Your task to perform on an android device: Open maps Image 0: 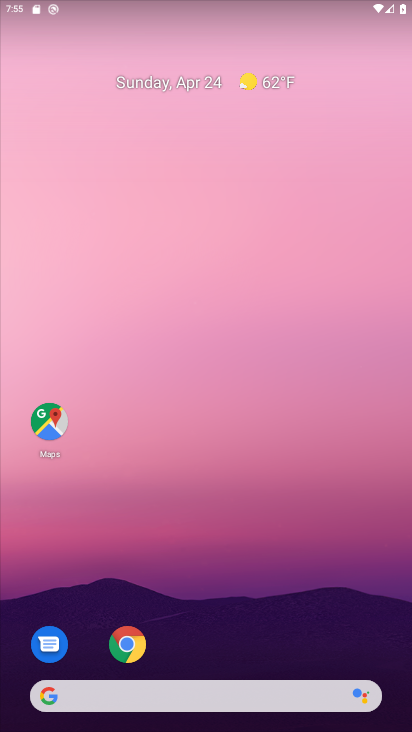
Step 0: drag from (204, 625) to (226, 54)
Your task to perform on an android device: Open maps Image 1: 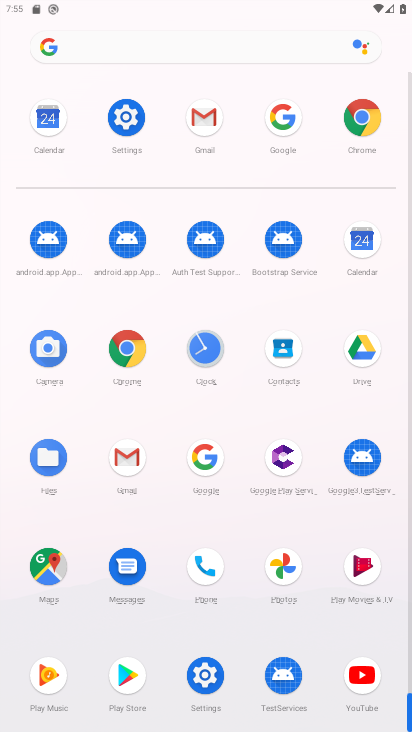
Step 1: click (46, 560)
Your task to perform on an android device: Open maps Image 2: 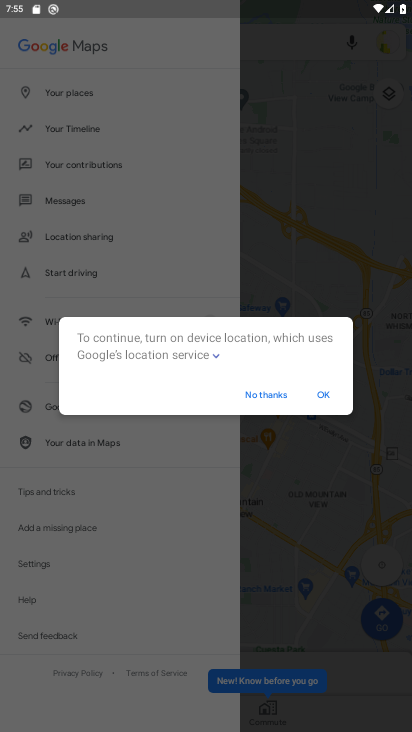
Step 2: click (314, 391)
Your task to perform on an android device: Open maps Image 3: 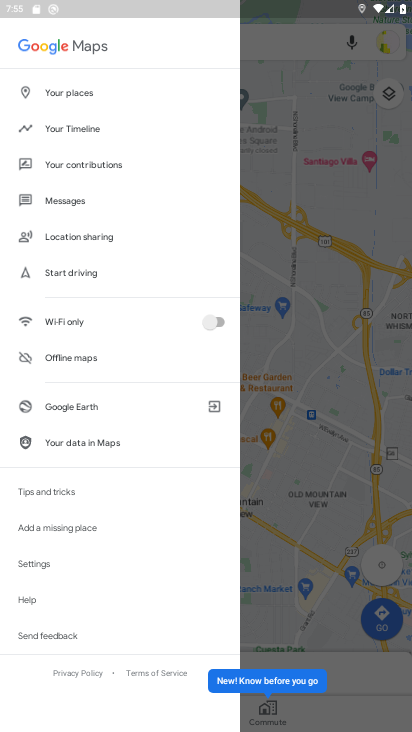
Step 3: click (283, 453)
Your task to perform on an android device: Open maps Image 4: 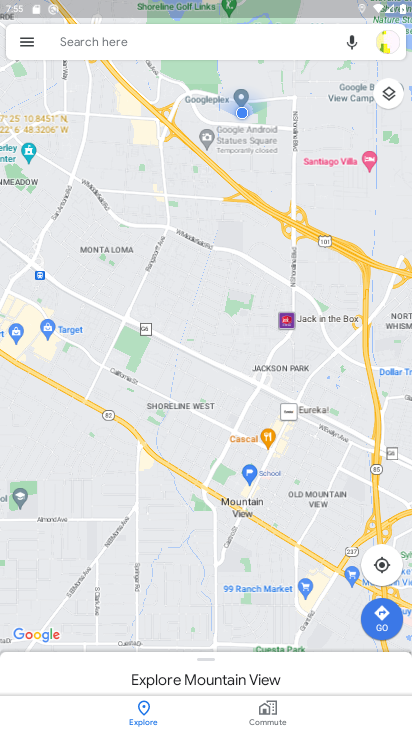
Step 4: click (24, 42)
Your task to perform on an android device: Open maps Image 5: 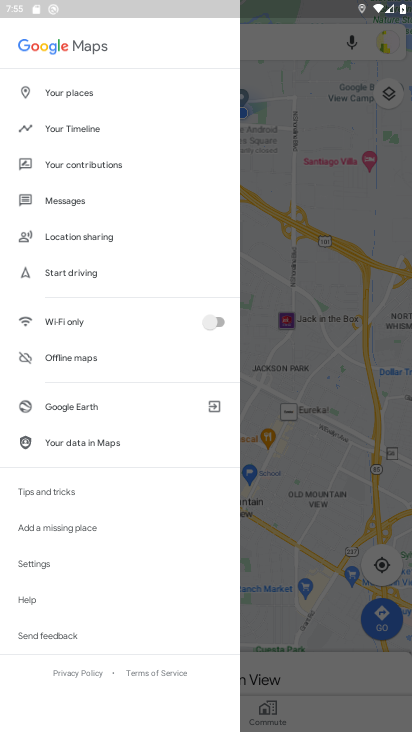
Step 5: drag from (101, 516) to (115, 145)
Your task to perform on an android device: Open maps Image 6: 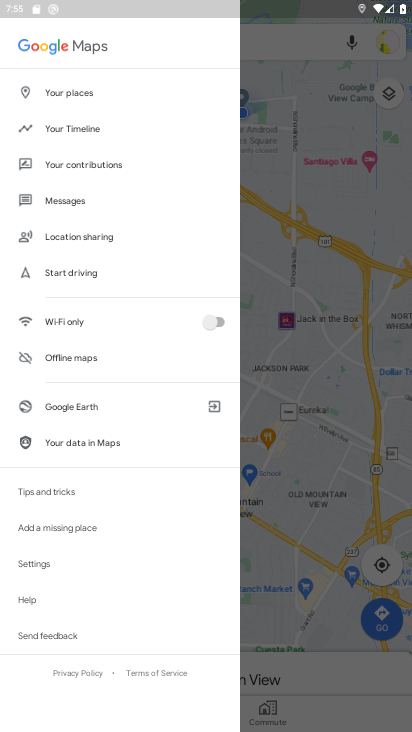
Step 6: drag from (115, 143) to (132, 520)
Your task to perform on an android device: Open maps Image 7: 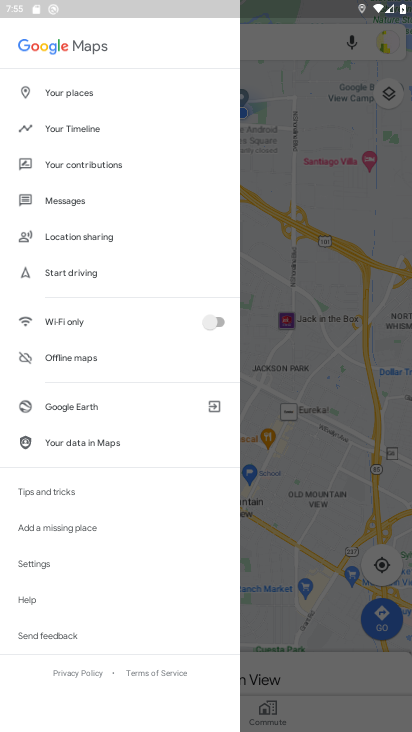
Step 7: click (312, 234)
Your task to perform on an android device: Open maps Image 8: 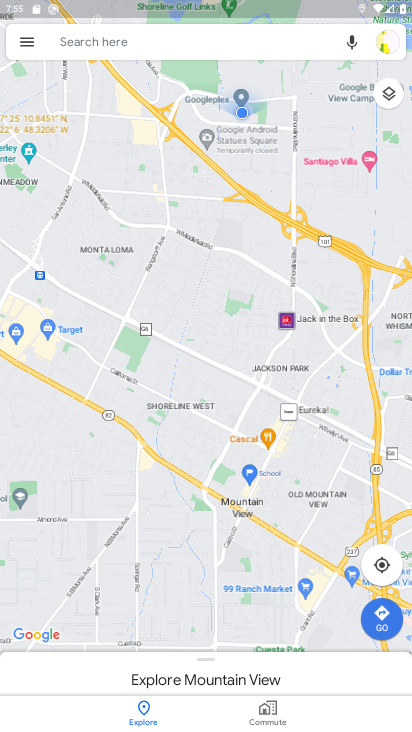
Step 8: task complete